Your task to perform on an android device: uninstall "Indeed Job Search" Image 0: 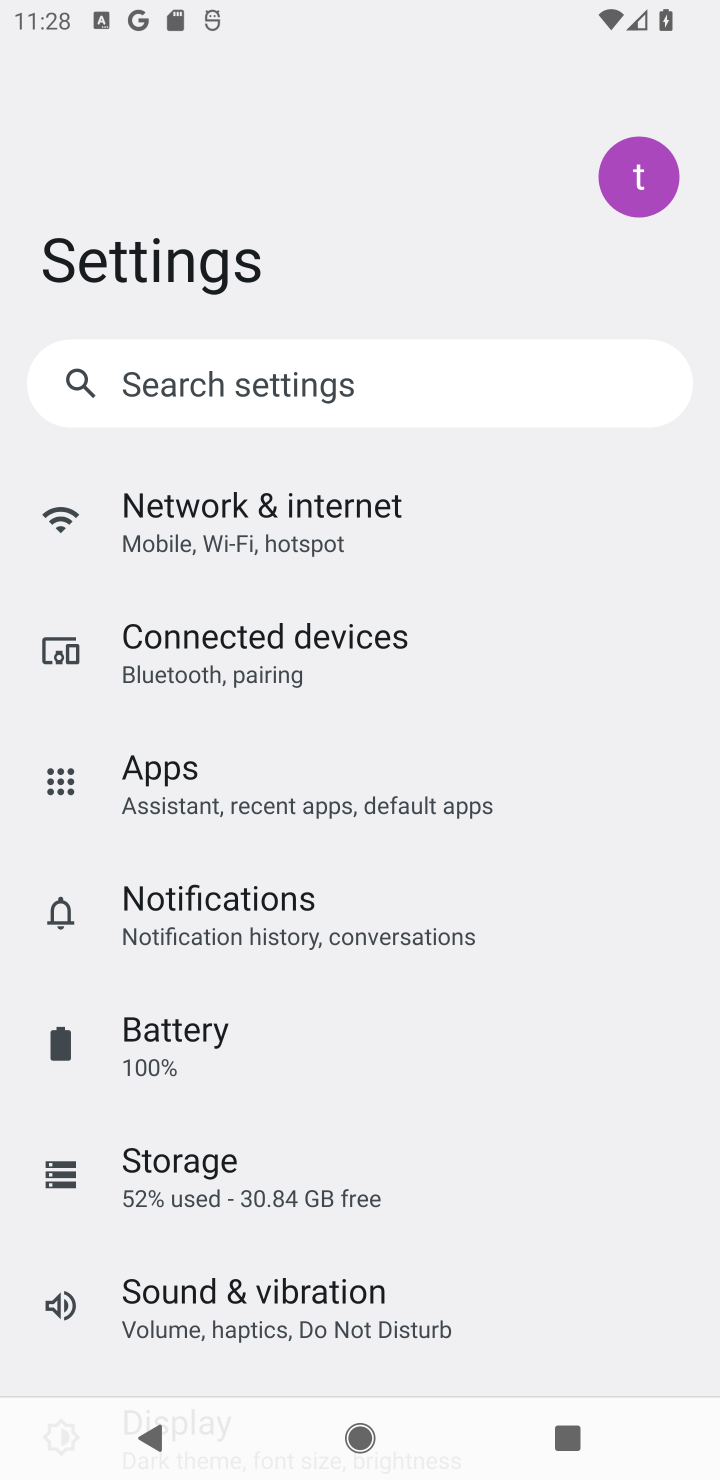
Step 0: press back button
Your task to perform on an android device: uninstall "Indeed Job Search" Image 1: 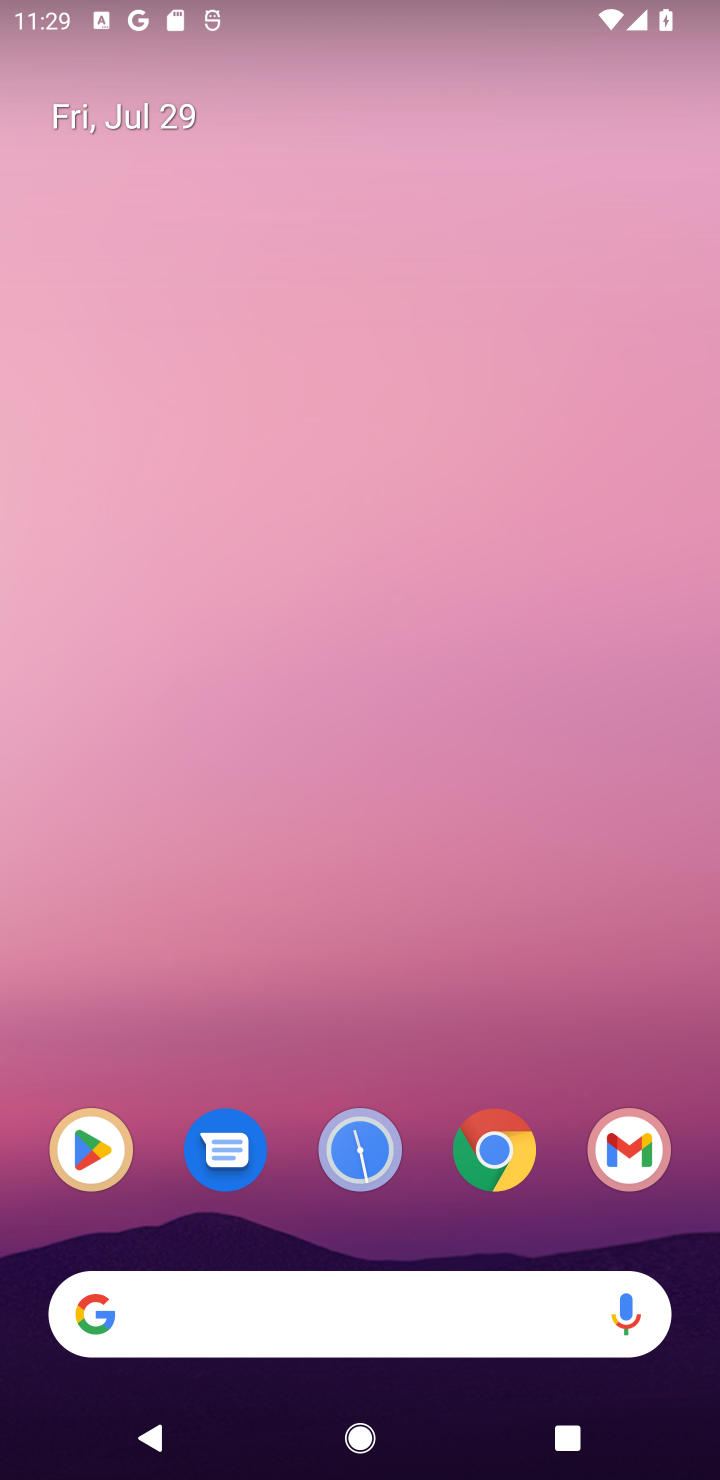
Step 1: click (122, 1144)
Your task to perform on an android device: uninstall "Indeed Job Search" Image 2: 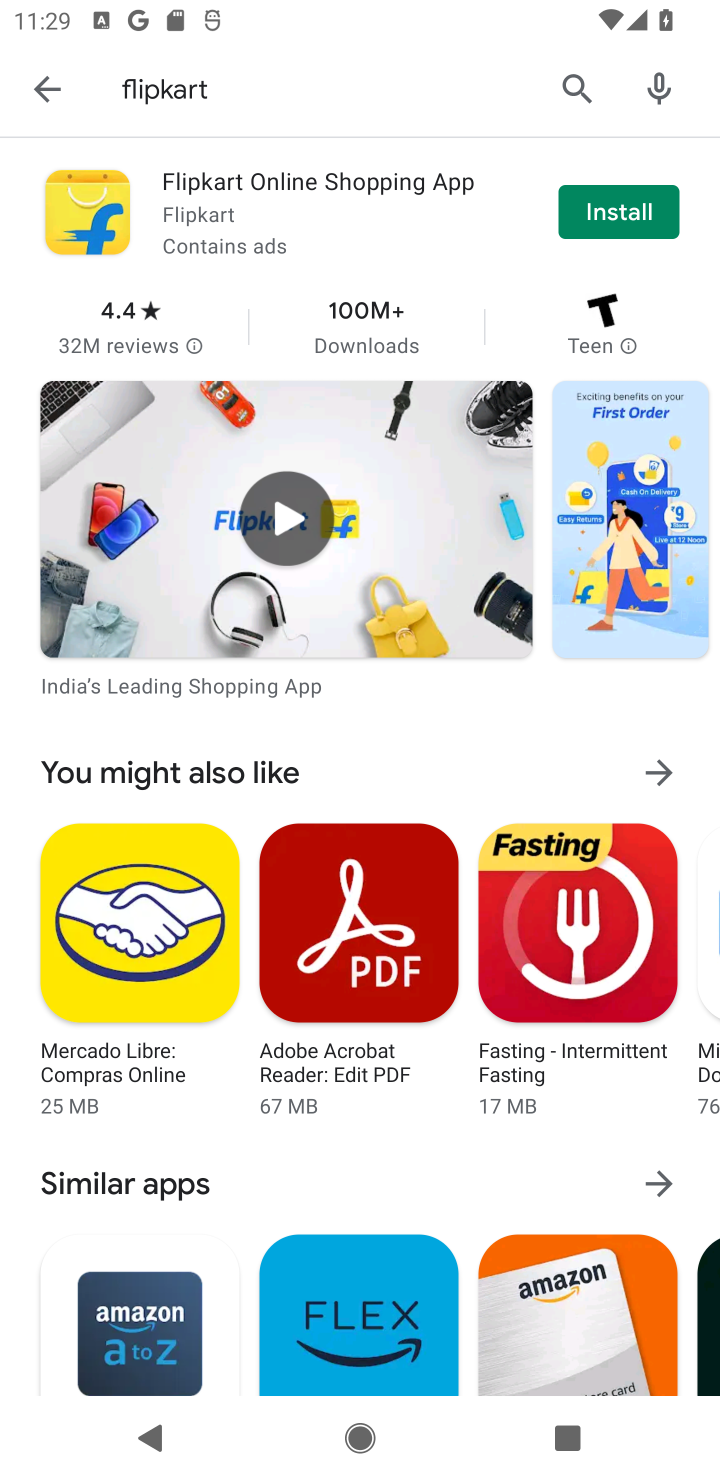
Step 2: click (565, 85)
Your task to perform on an android device: uninstall "Indeed Job Search" Image 3: 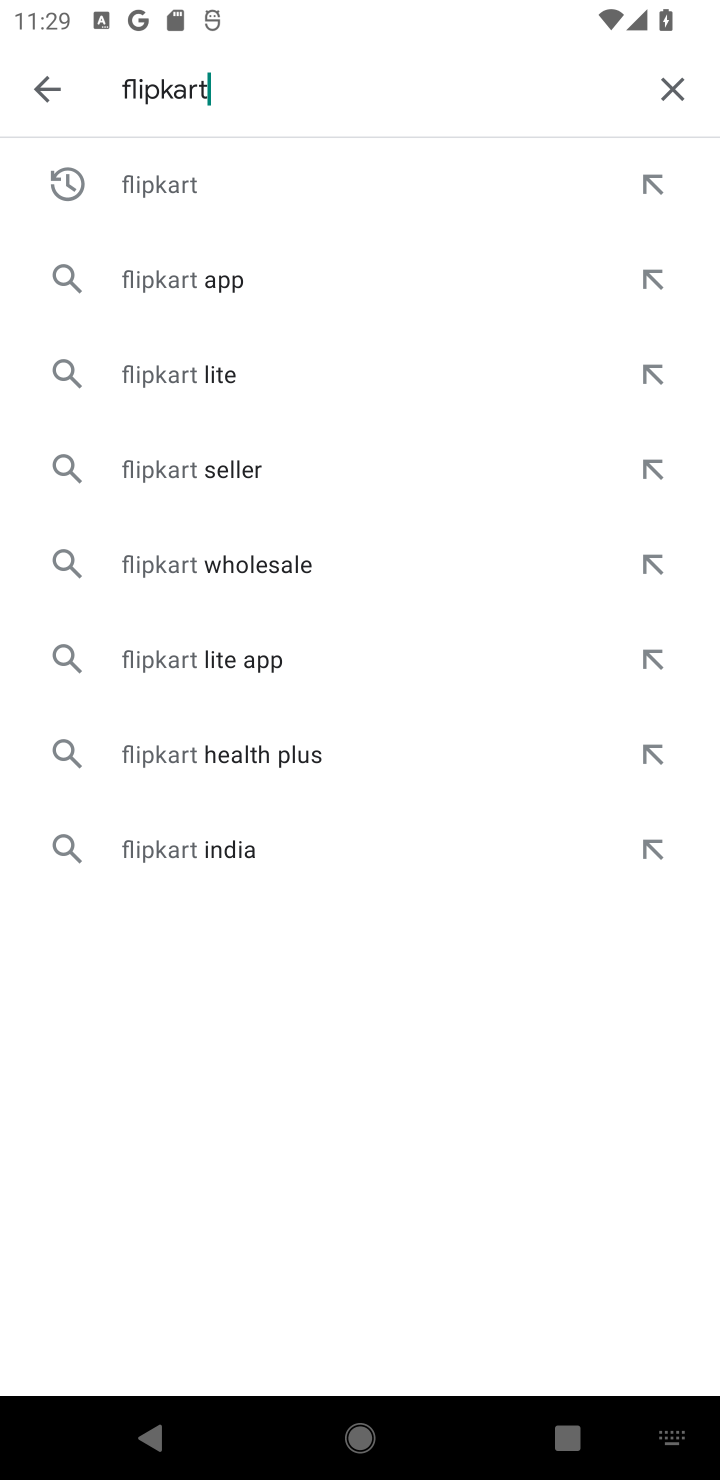
Step 3: click (668, 80)
Your task to perform on an android device: uninstall "Indeed Job Search" Image 4: 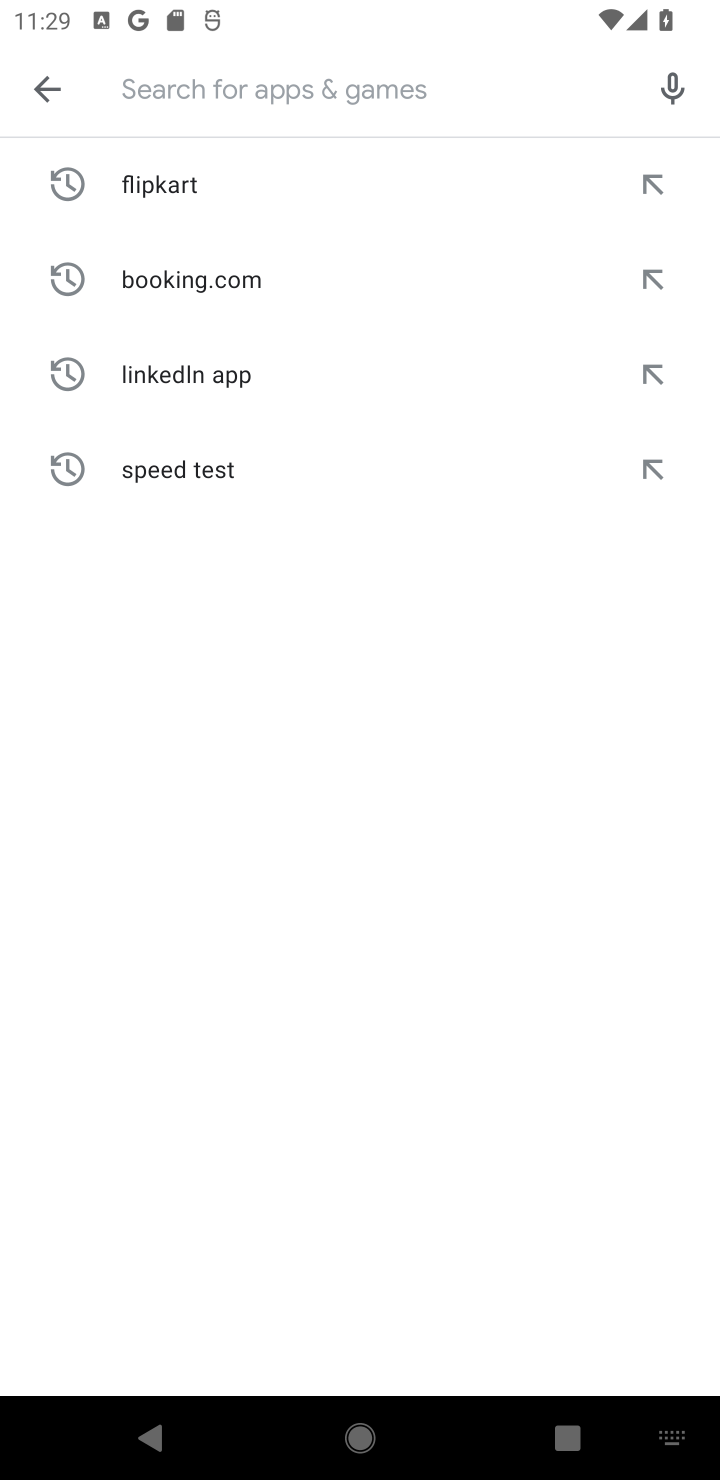
Step 4: type "indeed"
Your task to perform on an android device: uninstall "Indeed Job Search" Image 5: 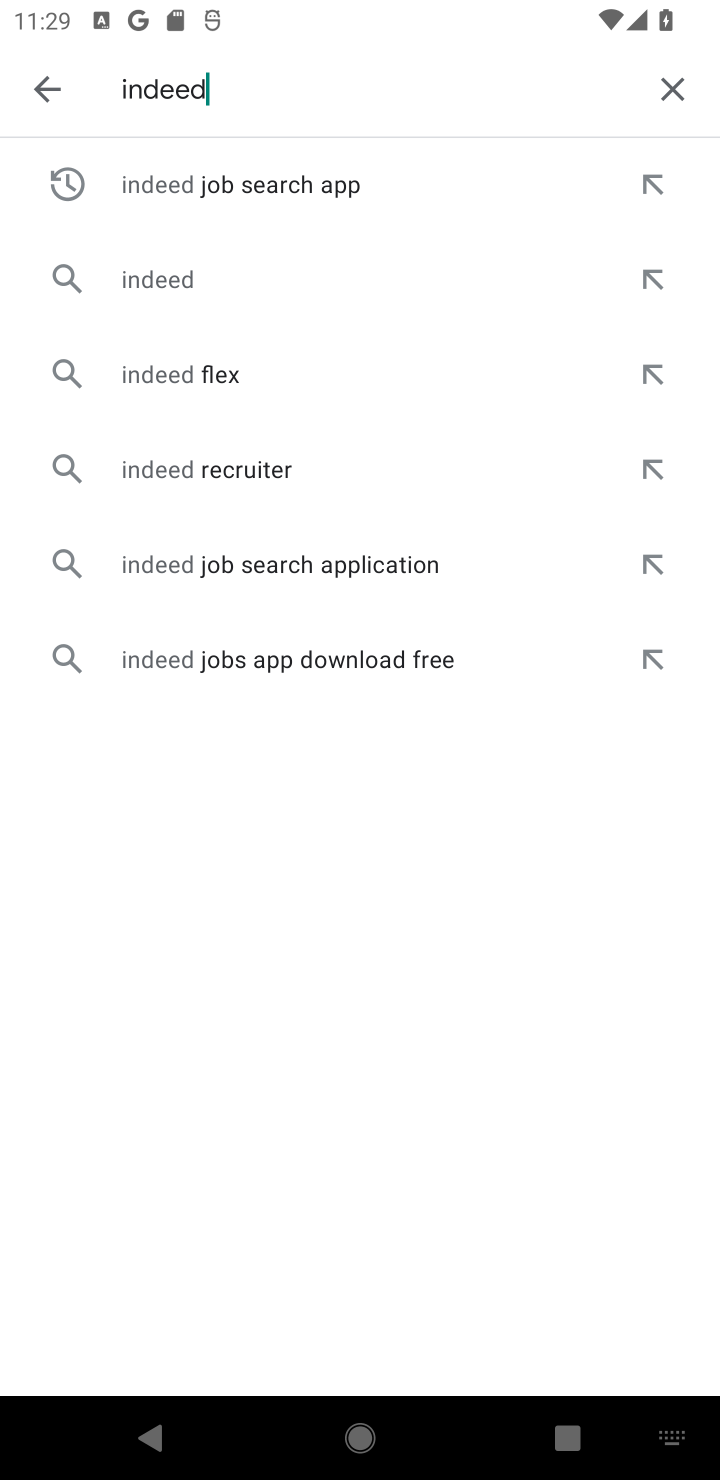
Step 5: click (262, 186)
Your task to perform on an android device: uninstall "Indeed Job Search" Image 6: 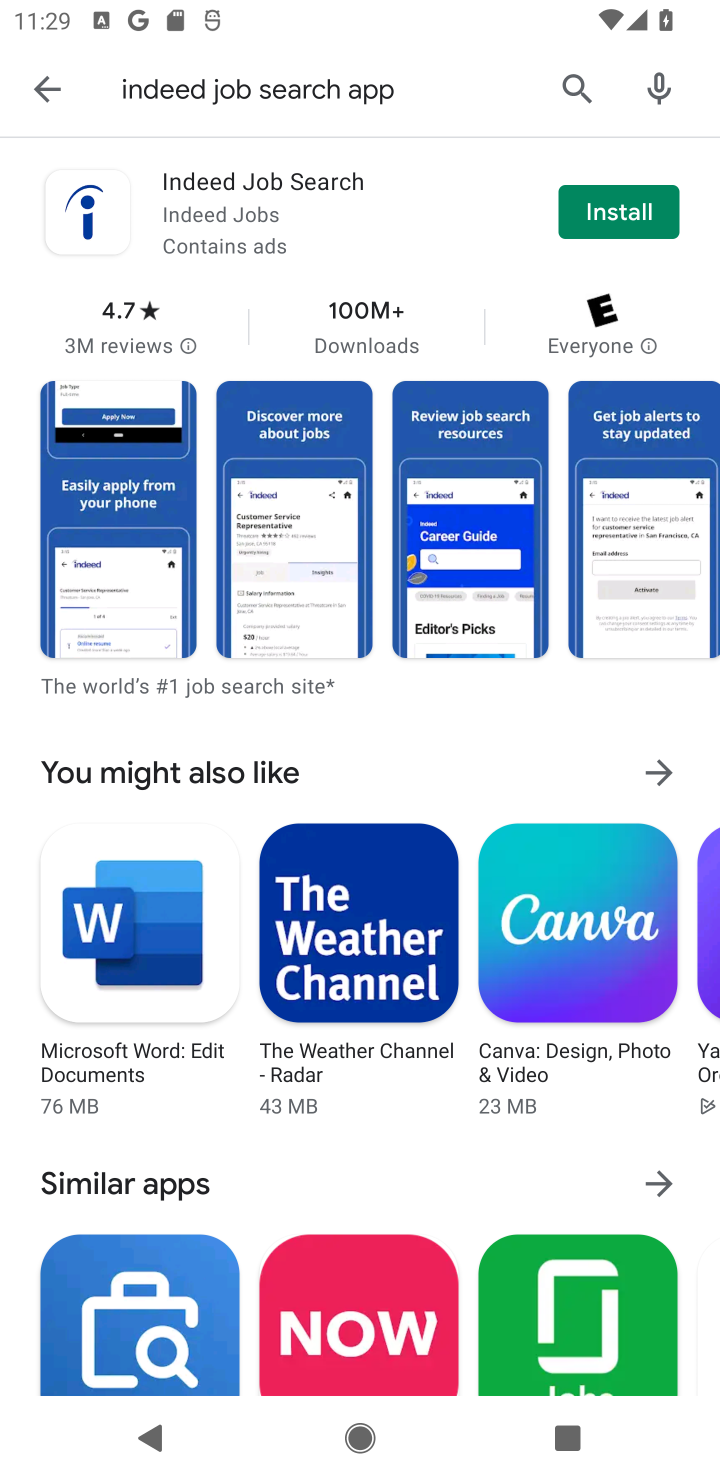
Step 6: task complete